Your task to perform on an android device: Clear all items from cart on walmart. Add razer thresher to the cart on walmart, then select checkout. Image 0: 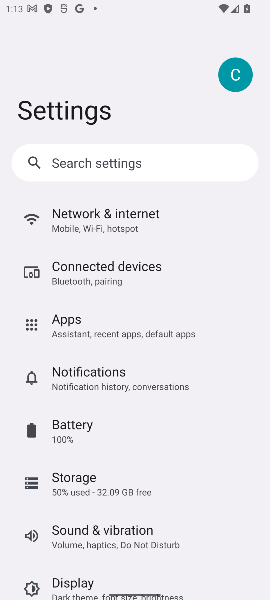
Step 0: press home button
Your task to perform on an android device: Clear all items from cart on walmart. Add razer thresher to the cart on walmart, then select checkout. Image 1: 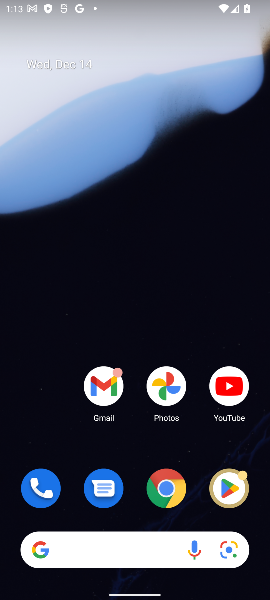
Step 1: drag from (137, 491) to (129, 210)
Your task to perform on an android device: Clear all items from cart on walmart. Add razer thresher to the cart on walmart, then select checkout. Image 2: 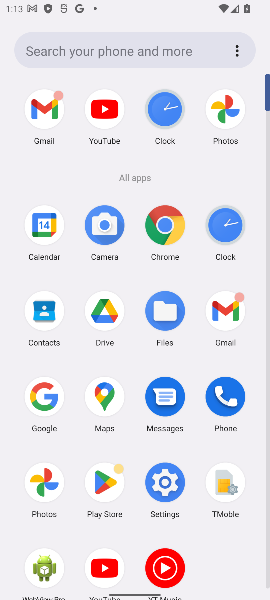
Step 2: click (39, 390)
Your task to perform on an android device: Clear all items from cart on walmart. Add razer thresher to the cart on walmart, then select checkout. Image 3: 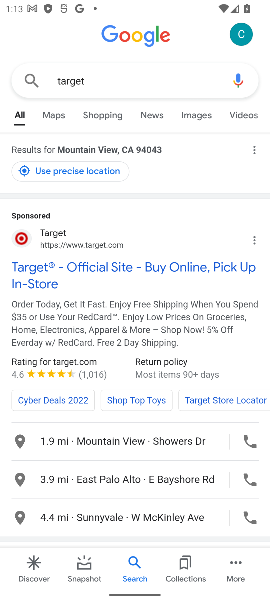
Step 3: click (75, 82)
Your task to perform on an android device: Clear all items from cart on walmart. Add razer thresher to the cart on walmart, then select checkout. Image 4: 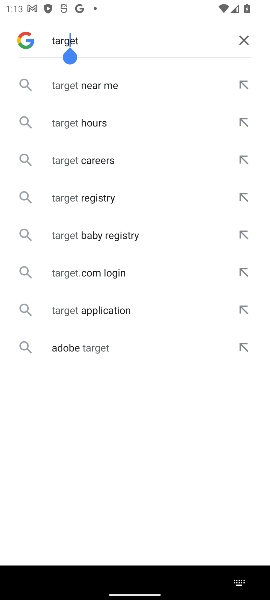
Step 4: click (241, 36)
Your task to perform on an android device: Clear all items from cart on walmart. Add razer thresher to the cart on walmart, then select checkout. Image 5: 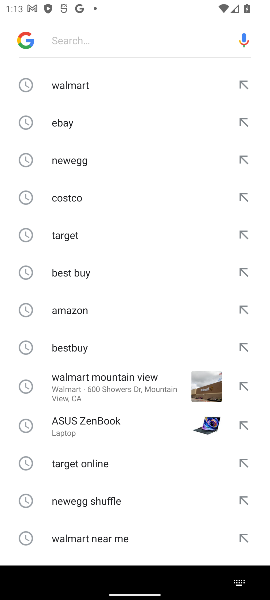
Step 5: click (73, 86)
Your task to perform on an android device: Clear all items from cart on walmart. Add razer thresher to the cart on walmart, then select checkout. Image 6: 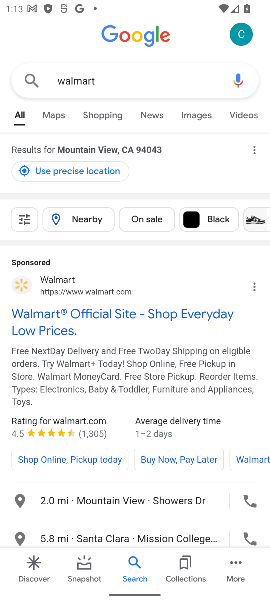
Step 6: click (66, 309)
Your task to perform on an android device: Clear all items from cart on walmart. Add razer thresher to the cart on walmart, then select checkout. Image 7: 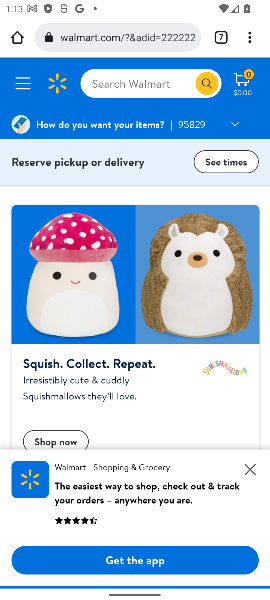
Step 7: click (132, 84)
Your task to perform on an android device: Clear all items from cart on walmart. Add razer thresher to the cart on walmart, then select checkout. Image 8: 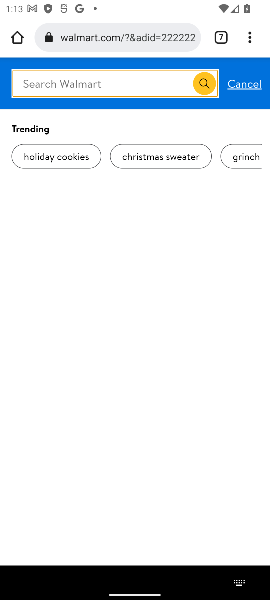
Step 8: type "razer thresher"
Your task to perform on an android device: Clear all items from cart on walmart. Add razer thresher to the cart on walmart, then select checkout. Image 9: 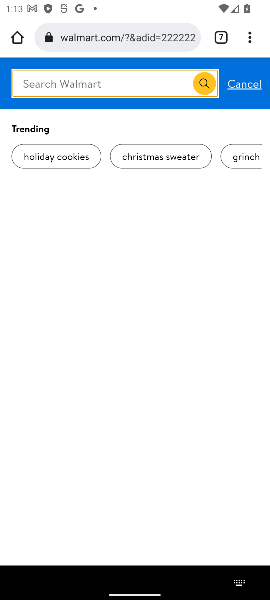
Step 9: click (199, 86)
Your task to perform on an android device: Clear all items from cart on walmart. Add razer thresher to the cart on walmart, then select checkout. Image 10: 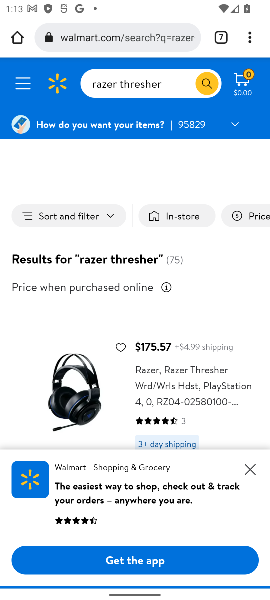
Step 10: click (246, 473)
Your task to perform on an android device: Clear all items from cart on walmart. Add razer thresher to the cart on walmart, then select checkout. Image 11: 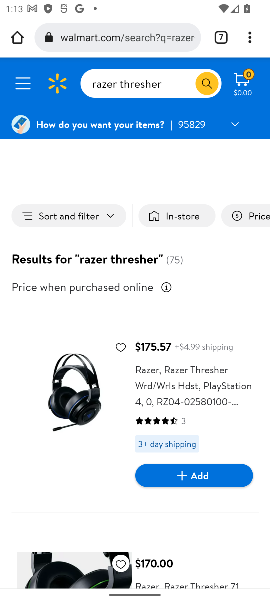
Step 11: click (198, 481)
Your task to perform on an android device: Clear all items from cart on walmart. Add razer thresher to the cart on walmart, then select checkout. Image 12: 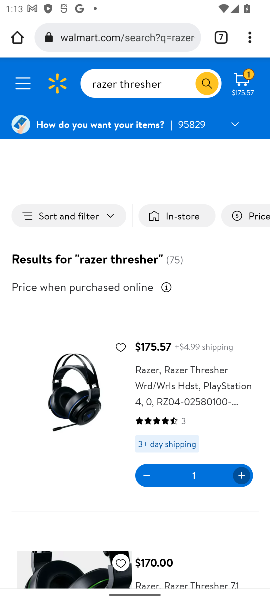
Step 12: click (240, 83)
Your task to perform on an android device: Clear all items from cart on walmart. Add razer thresher to the cart on walmart, then select checkout. Image 13: 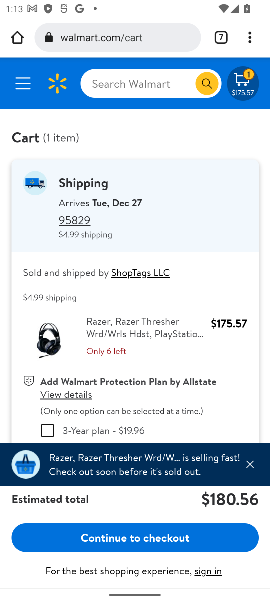
Step 13: click (134, 543)
Your task to perform on an android device: Clear all items from cart on walmart. Add razer thresher to the cart on walmart, then select checkout. Image 14: 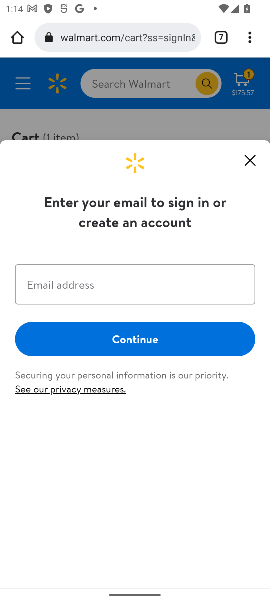
Step 14: task complete